Your task to perform on an android device: open device folders in google photos Image 0: 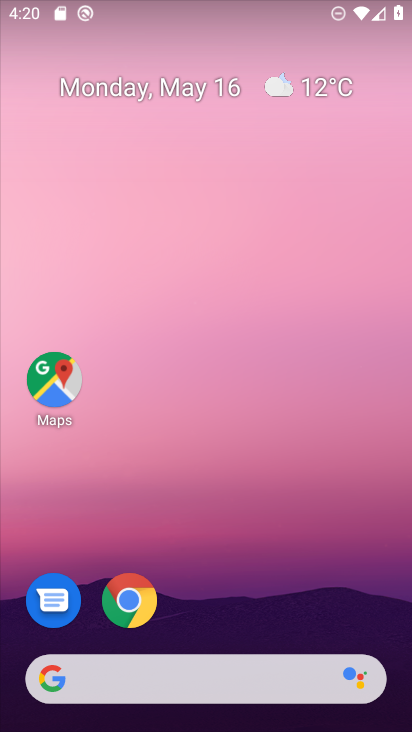
Step 0: drag from (206, 610) to (195, 146)
Your task to perform on an android device: open device folders in google photos Image 1: 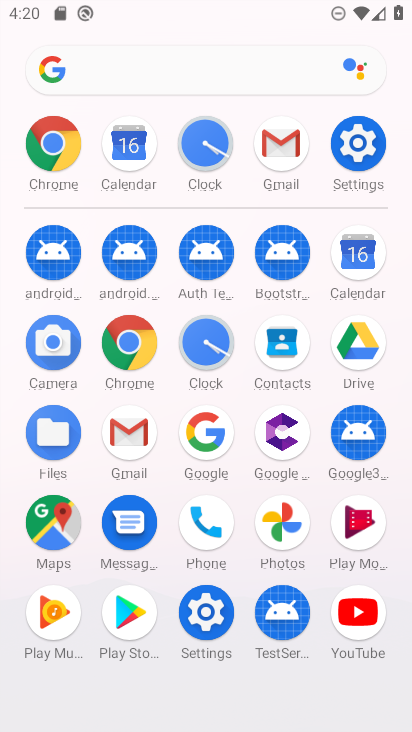
Step 1: click (298, 517)
Your task to perform on an android device: open device folders in google photos Image 2: 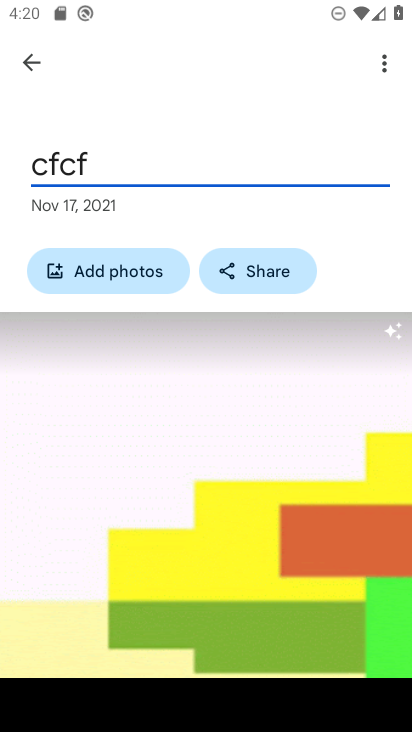
Step 2: click (46, 61)
Your task to perform on an android device: open device folders in google photos Image 3: 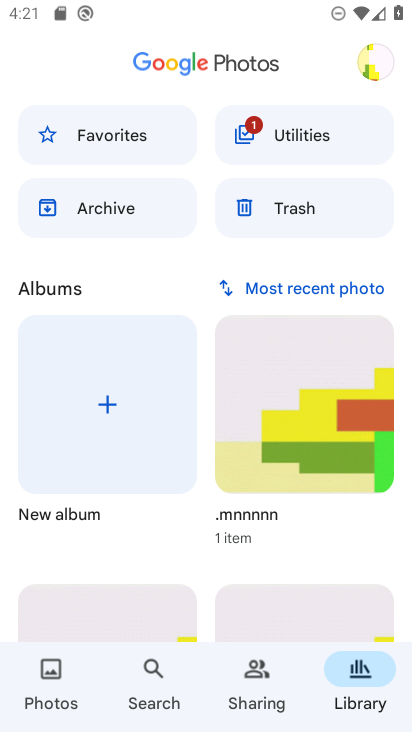
Step 3: click (66, 690)
Your task to perform on an android device: open device folders in google photos Image 4: 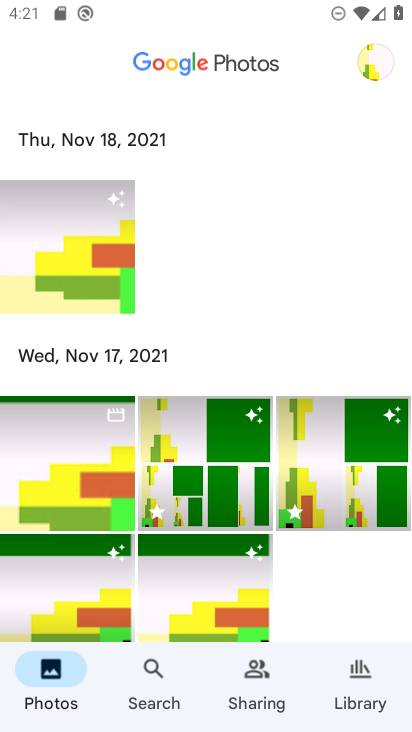
Step 4: click (349, 677)
Your task to perform on an android device: open device folders in google photos Image 5: 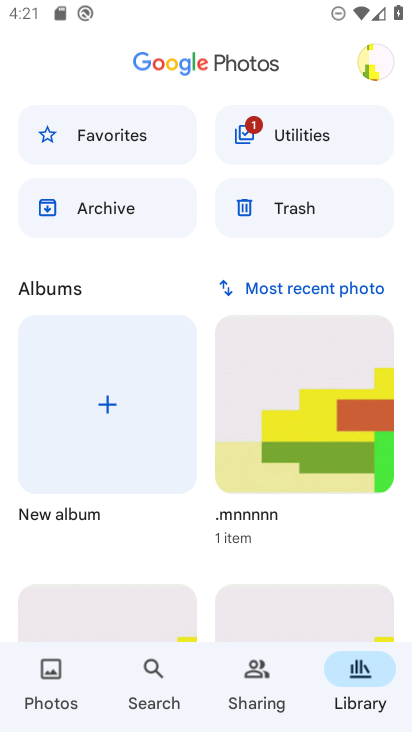
Step 5: click (341, 128)
Your task to perform on an android device: open device folders in google photos Image 6: 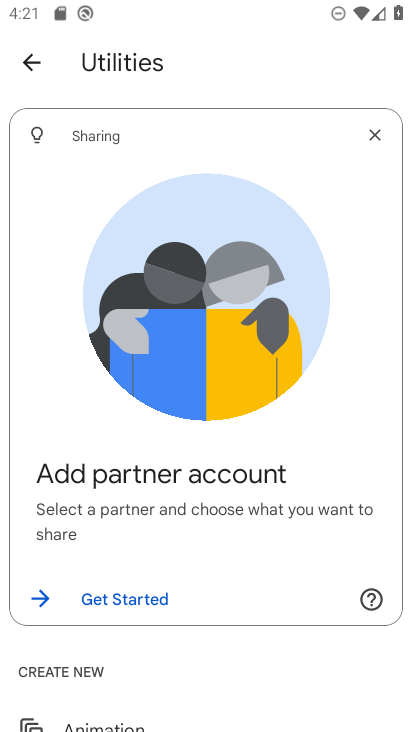
Step 6: drag from (203, 626) to (241, 9)
Your task to perform on an android device: open device folders in google photos Image 7: 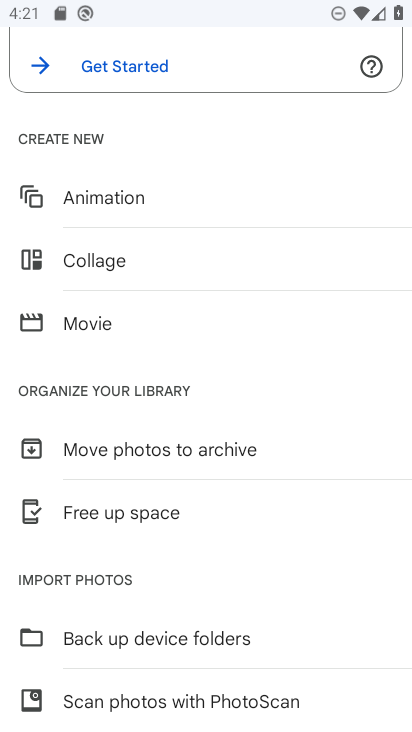
Step 7: drag from (251, 474) to (298, 191)
Your task to perform on an android device: open device folders in google photos Image 8: 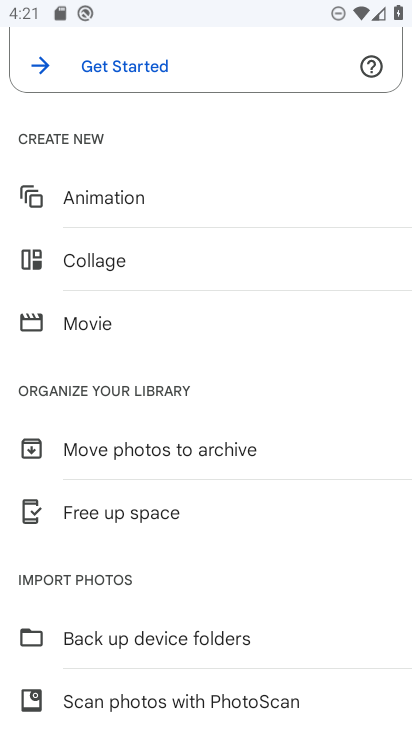
Step 8: click (195, 640)
Your task to perform on an android device: open device folders in google photos Image 9: 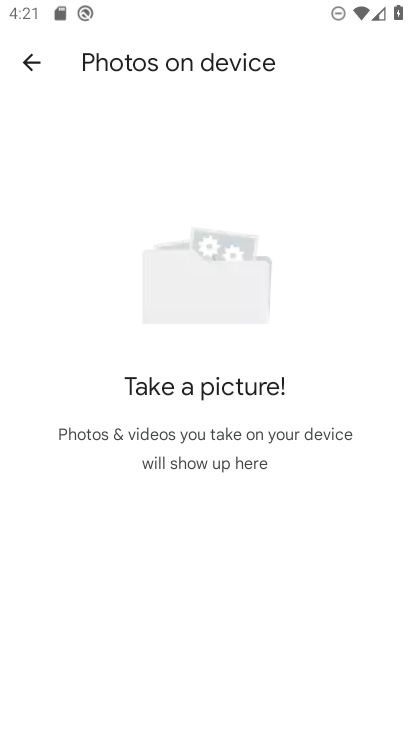
Step 9: task complete